Your task to perform on an android device: see tabs open on other devices in the chrome app Image 0: 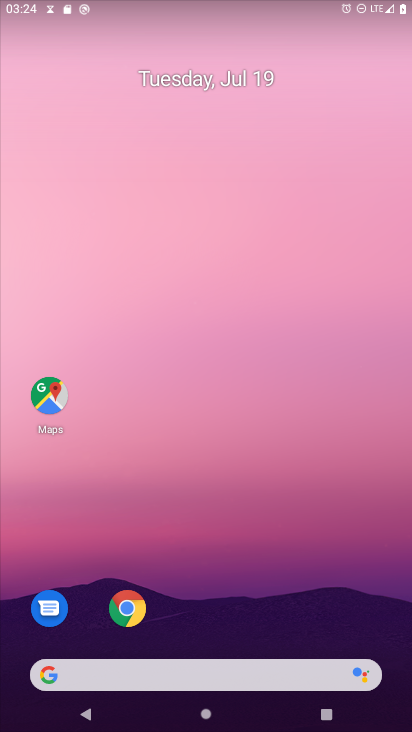
Step 0: drag from (98, 649) to (141, 107)
Your task to perform on an android device: see tabs open on other devices in the chrome app Image 1: 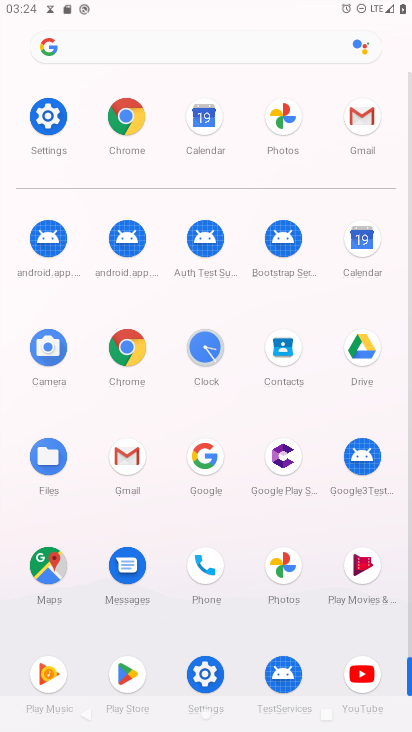
Step 1: click (139, 348)
Your task to perform on an android device: see tabs open on other devices in the chrome app Image 2: 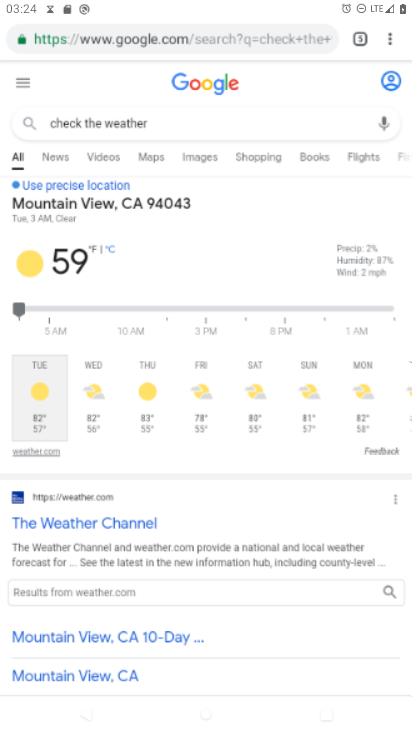
Step 2: click (383, 36)
Your task to perform on an android device: see tabs open on other devices in the chrome app Image 3: 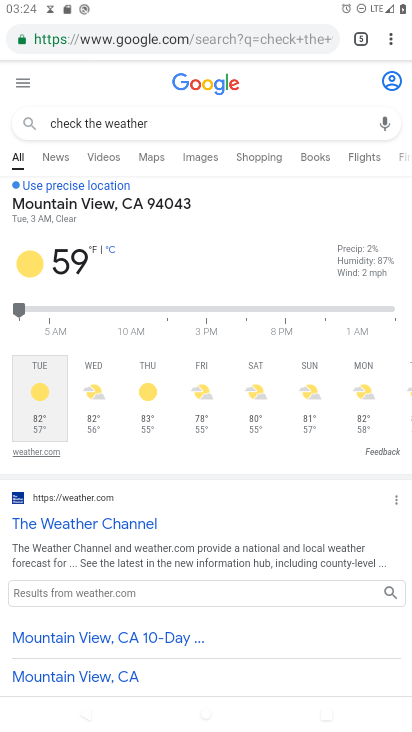
Step 3: task complete